Your task to perform on an android device: open a bookmark in the chrome app Image 0: 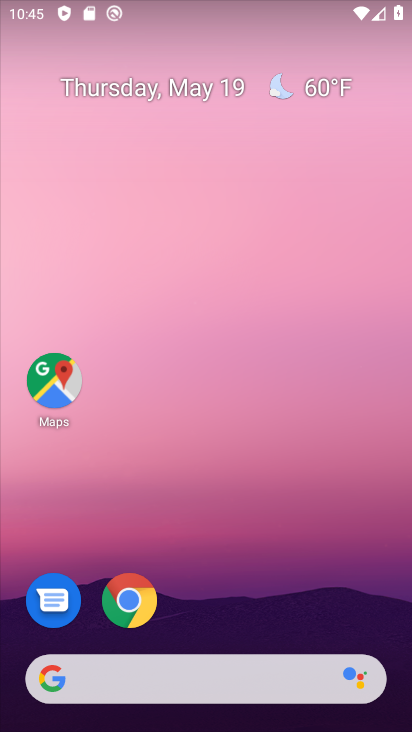
Step 0: drag from (359, 611) to (348, 248)
Your task to perform on an android device: open a bookmark in the chrome app Image 1: 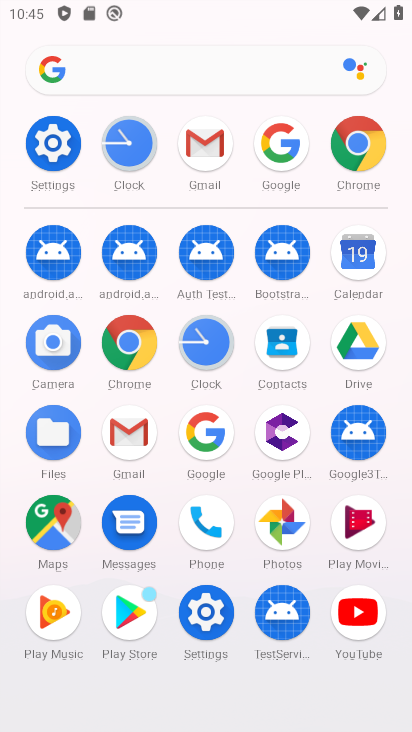
Step 1: click (150, 341)
Your task to perform on an android device: open a bookmark in the chrome app Image 2: 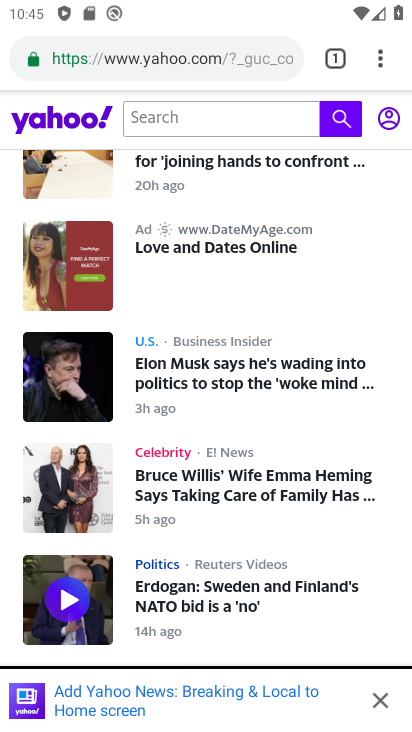
Step 2: click (377, 60)
Your task to perform on an android device: open a bookmark in the chrome app Image 3: 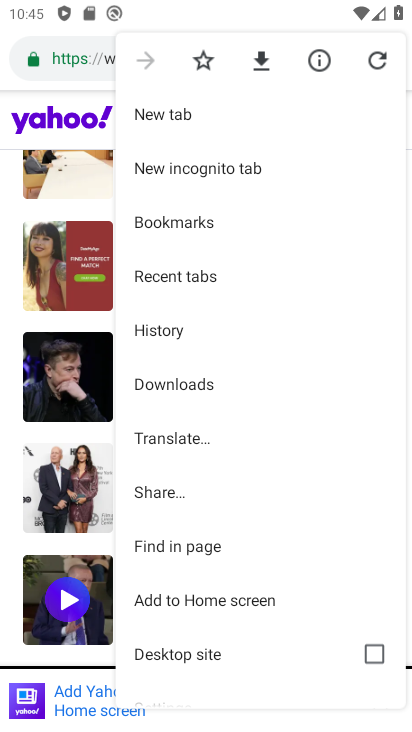
Step 3: click (240, 237)
Your task to perform on an android device: open a bookmark in the chrome app Image 4: 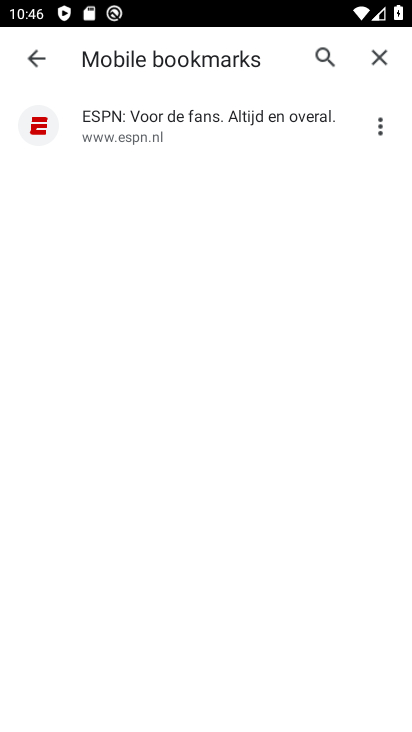
Step 4: drag from (282, 430) to (294, 325)
Your task to perform on an android device: open a bookmark in the chrome app Image 5: 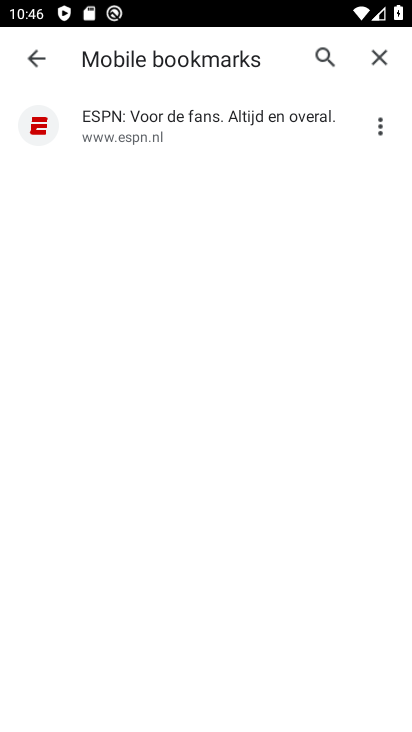
Step 5: click (259, 121)
Your task to perform on an android device: open a bookmark in the chrome app Image 6: 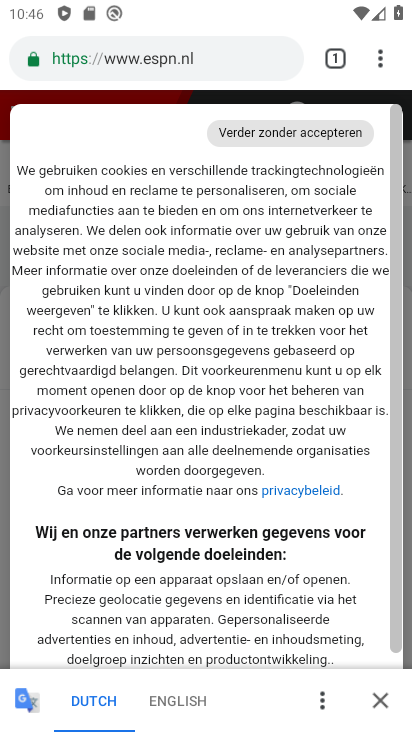
Step 6: drag from (309, 417) to (312, 339)
Your task to perform on an android device: open a bookmark in the chrome app Image 7: 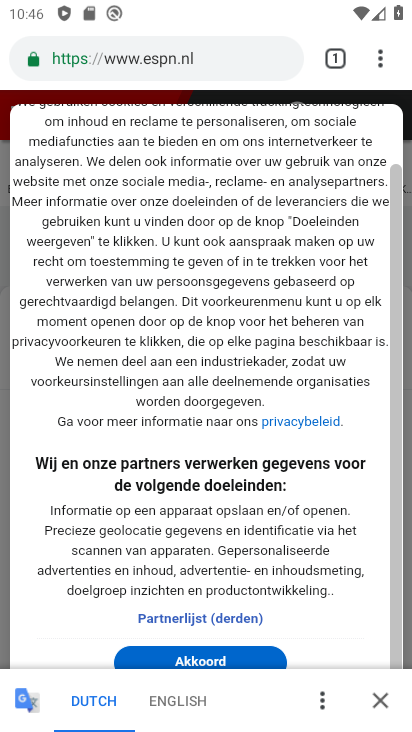
Step 7: click (306, 405)
Your task to perform on an android device: open a bookmark in the chrome app Image 8: 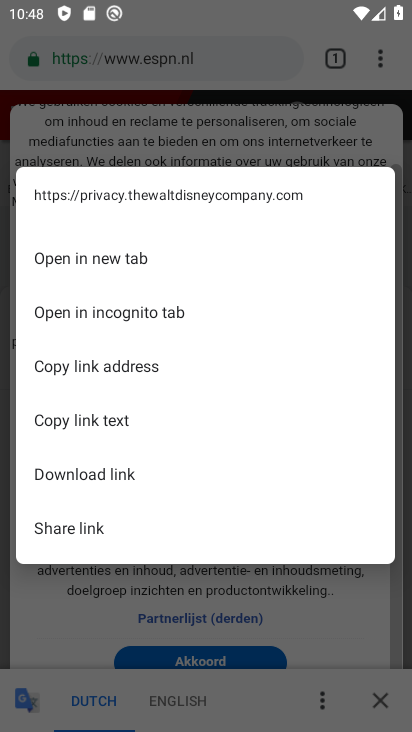
Step 8: click (312, 616)
Your task to perform on an android device: open a bookmark in the chrome app Image 9: 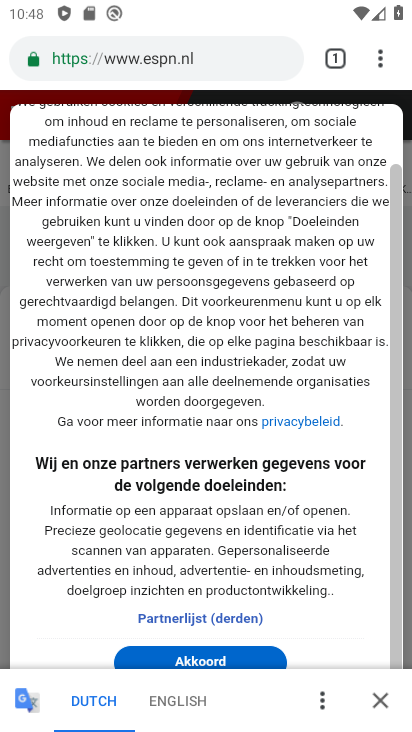
Step 9: click (378, 67)
Your task to perform on an android device: open a bookmark in the chrome app Image 10: 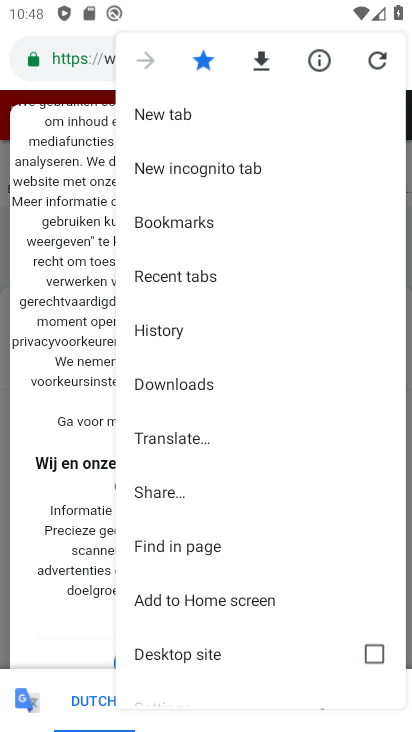
Step 10: task complete